Your task to perform on an android device: turn off sleep mode Image 0: 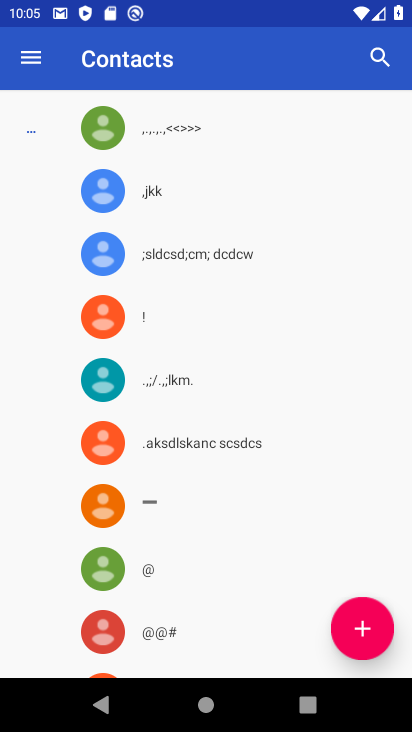
Step 0: press home button
Your task to perform on an android device: turn off sleep mode Image 1: 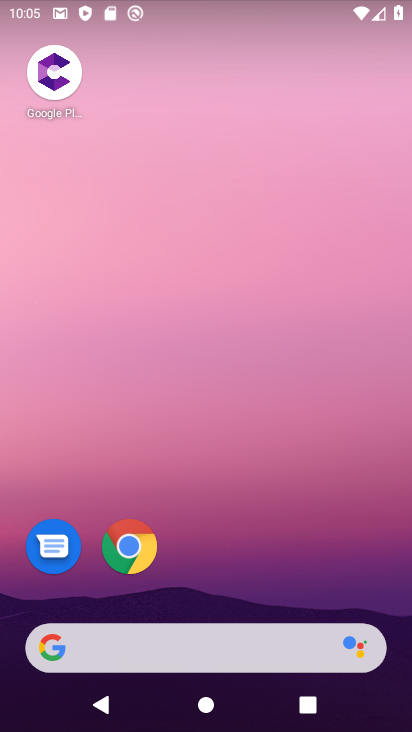
Step 1: drag from (242, 677) to (216, 63)
Your task to perform on an android device: turn off sleep mode Image 2: 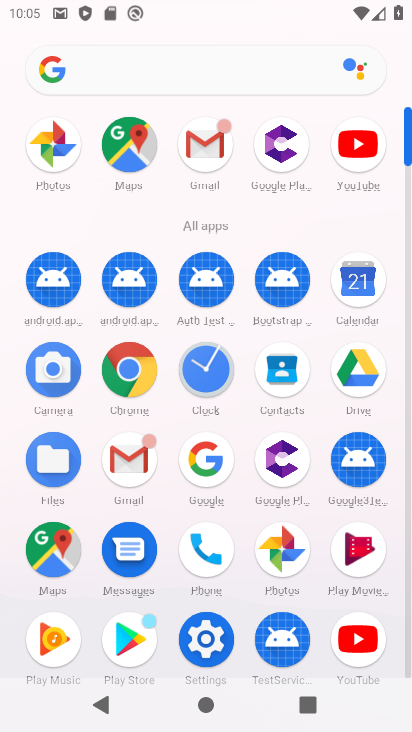
Step 2: click (204, 646)
Your task to perform on an android device: turn off sleep mode Image 3: 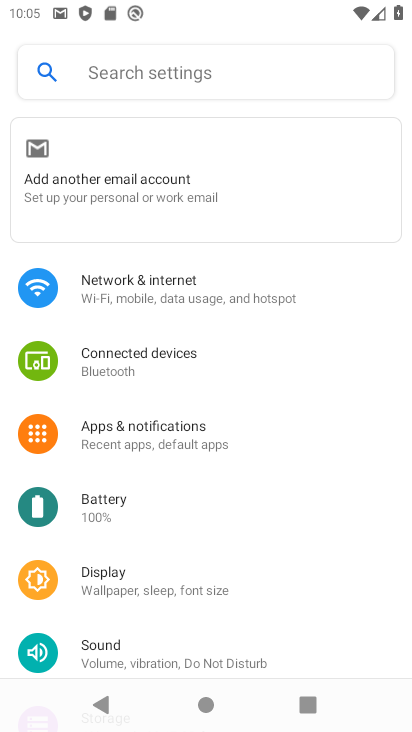
Step 3: click (189, 68)
Your task to perform on an android device: turn off sleep mode Image 4: 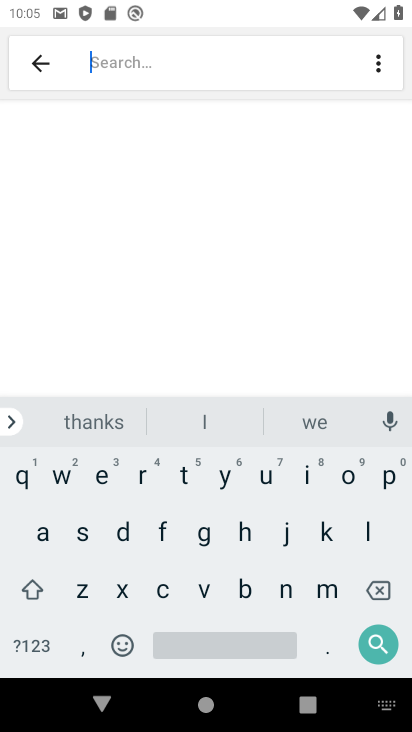
Step 4: click (80, 533)
Your task to perform on an android device: turn off sleep mode Image 5: 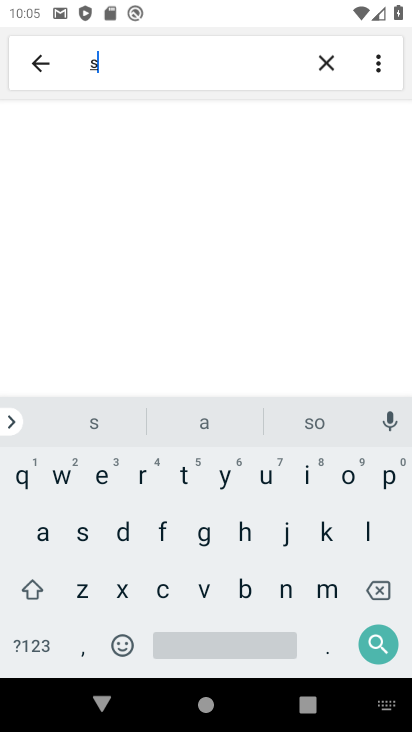
Step 5: click (374, 530)
Your task to perform on an android device: turn off sleep mode Image 6: 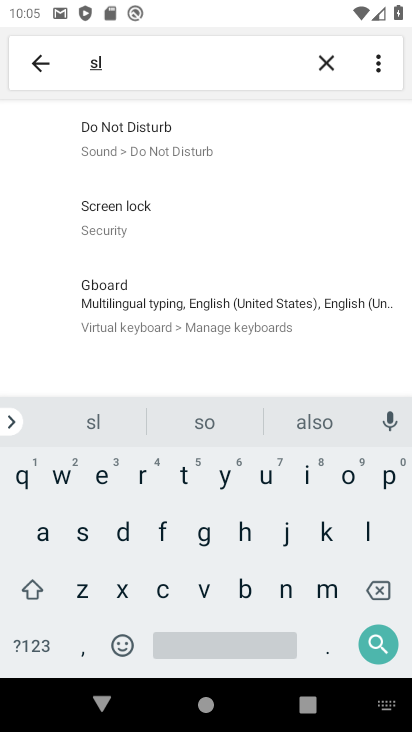
Step 6: click (104, 475)
Your task to perform on an android device: turn off sleep mode Image 7: 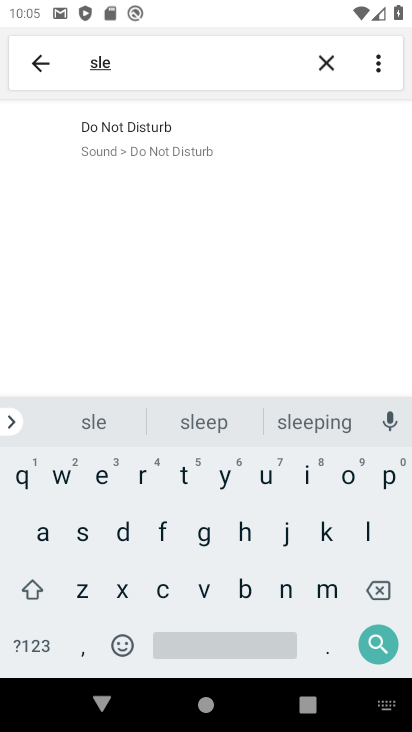
Step 7: click (157, 163)
Your task to perform on an android device: turn off sleep mode Image 8: 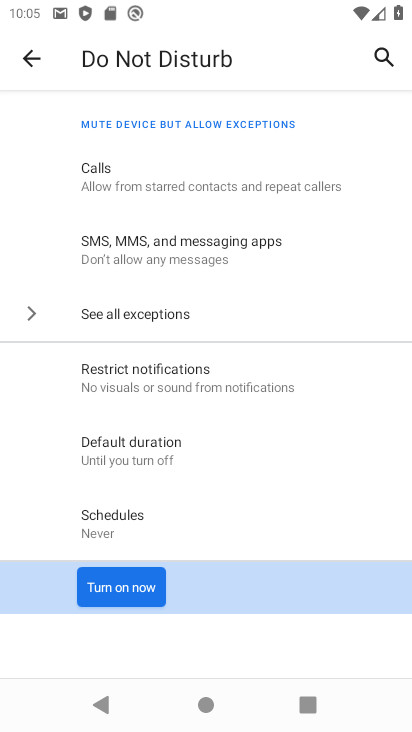
Step 8: click (114, 585)
Your task to perform on an android device: turn off sleep mode Image 9: 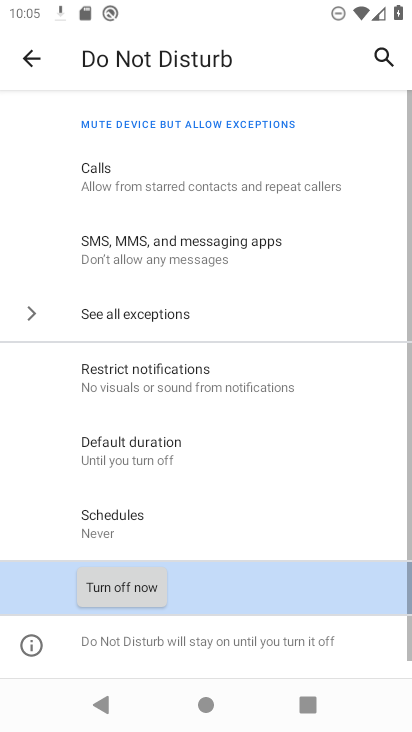
Step 9: click (115, 583)
Your task to perform on an android device: turn off sleep mode Image 10: 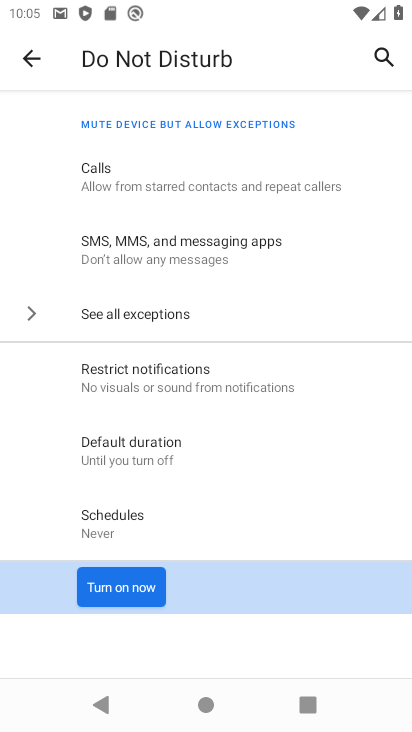
Step 10: task complete